Your task to perform on an android device: turn on the 12-hour format for clock Image 0: 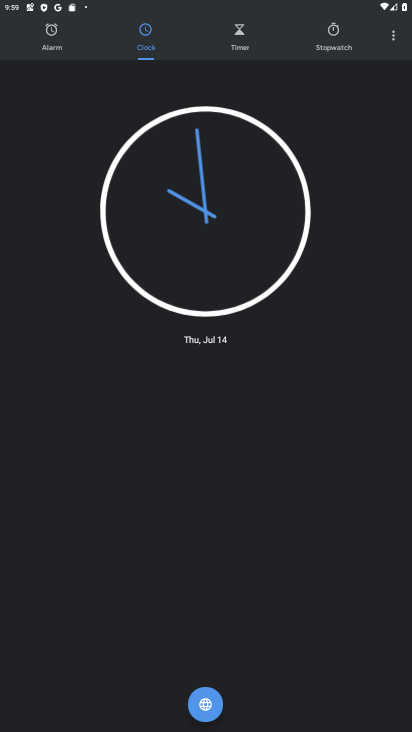
Step 0: click (398, 38)
Your task to perform on an android device: turn on the 12-hour format for clock Image 1: 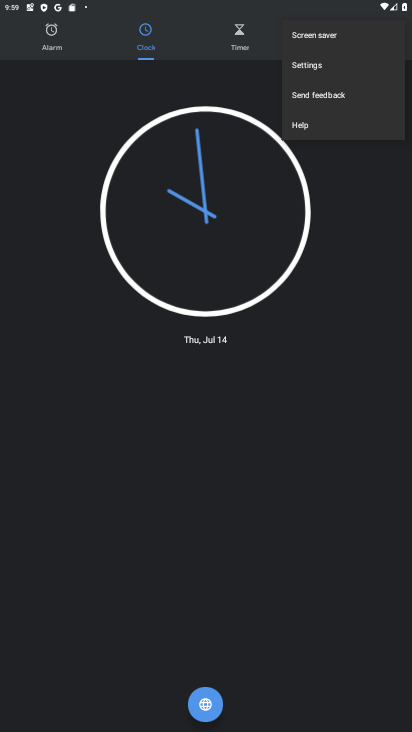
Step 1: click (320, 69)
Your task to perform on an android device: turn on the 12-hour format for clock Image 2: 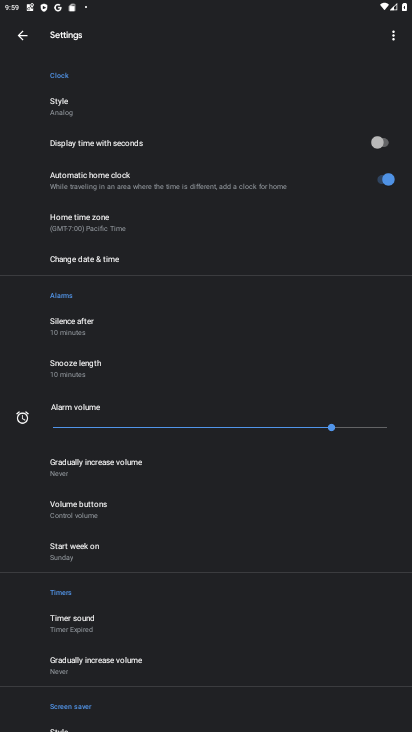
Step 2: drag from (228, 650) to (242, 259)
Your task to perform on an android device: turn on the 12-hour format for clock Image 3: 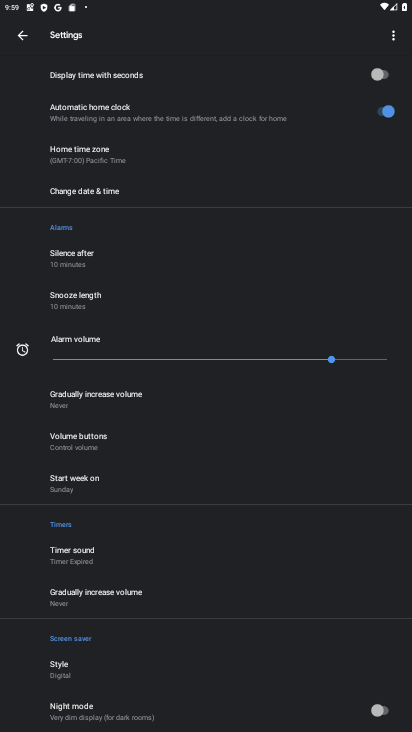
Step 3: click (111, 195)
Your task to perform on an android device: turn on the 12-hour format for clock Image 4: 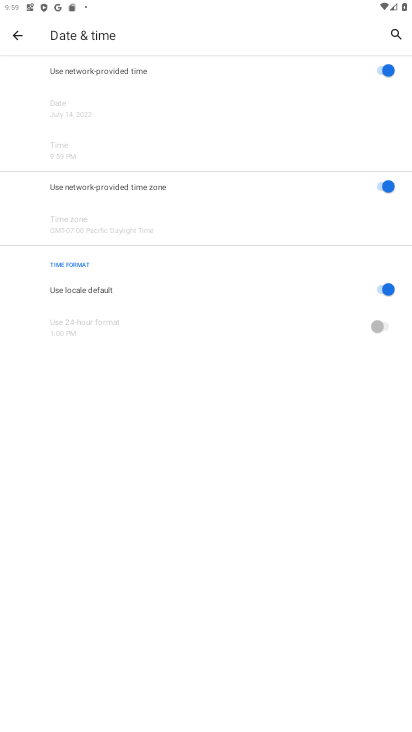
Step 4: task complete